Your task to perform on an android device: empty trash in the gmail app Image 0: 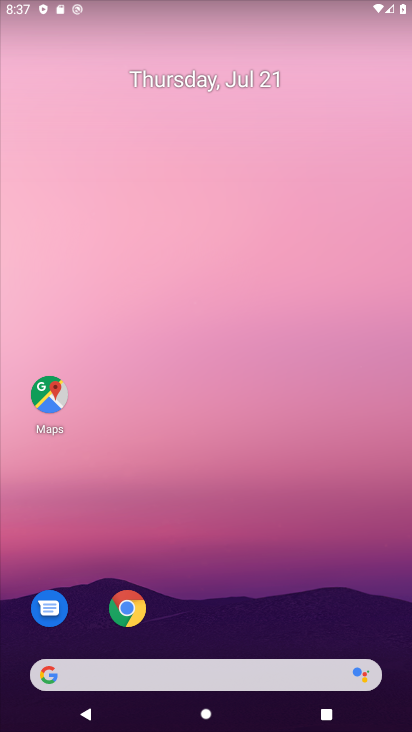
Step 0: drag from (237, 637) to (128, 172)
Your task to perform on an android device: empty trash in the gmail app Image 1: 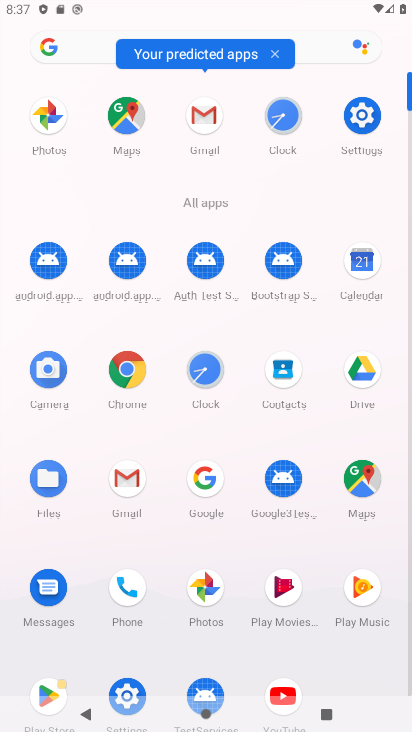
Step 1: click (200, 108)
Your task to perform on an android device: empty trash in the gmail app Image 2: 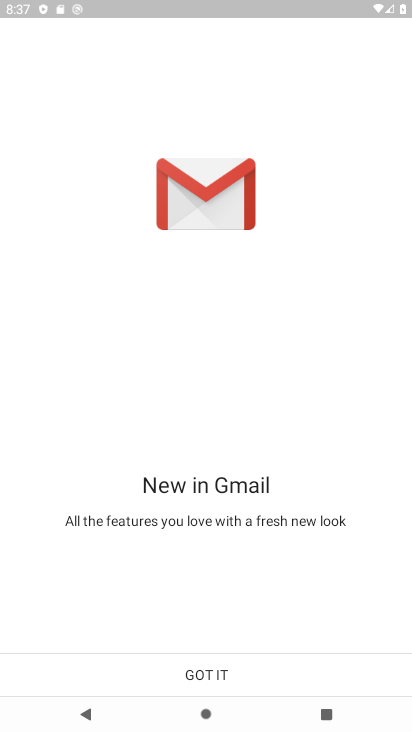
Step 2: click (201, 663)
Your task to perform on an android device: empty trash in the gmail app Image 3: 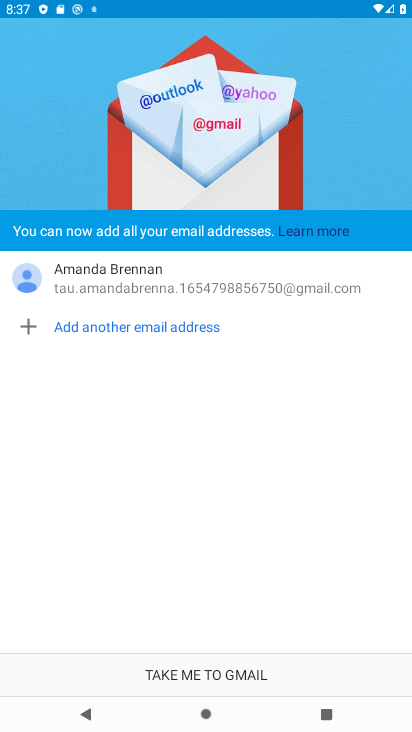
Step 3: click (206, 677)
Your task to perform on an android device: empty trash in the gmail app Image 4: 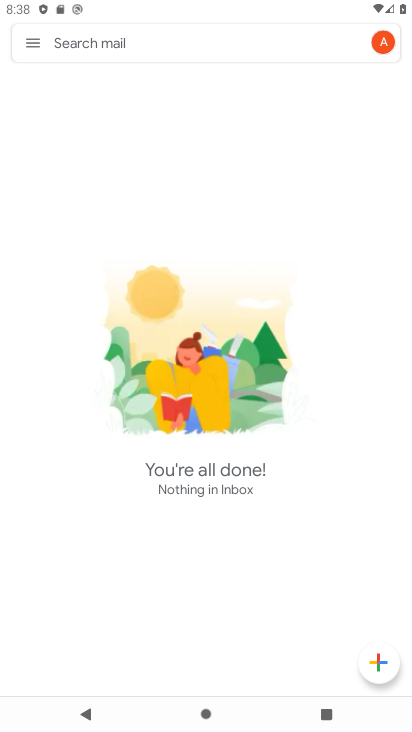
Step 4: click (25, 43)
Your task to perform on an android device: empty trash in the gmail app Image 5: 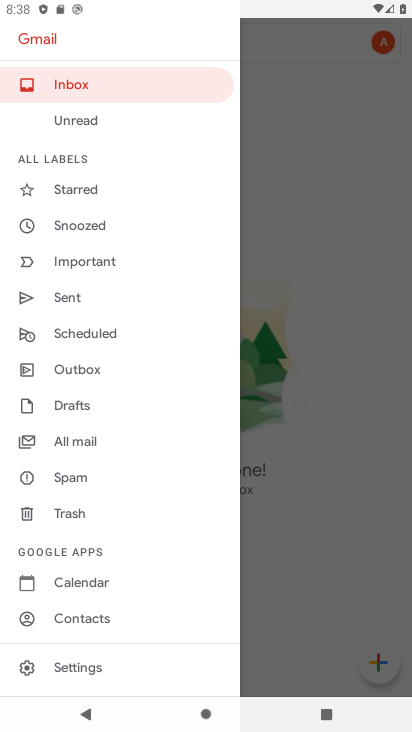
Step 5: click (76, 510)
Your task to perform on an android device: empty trash in the gmail app Image 6: 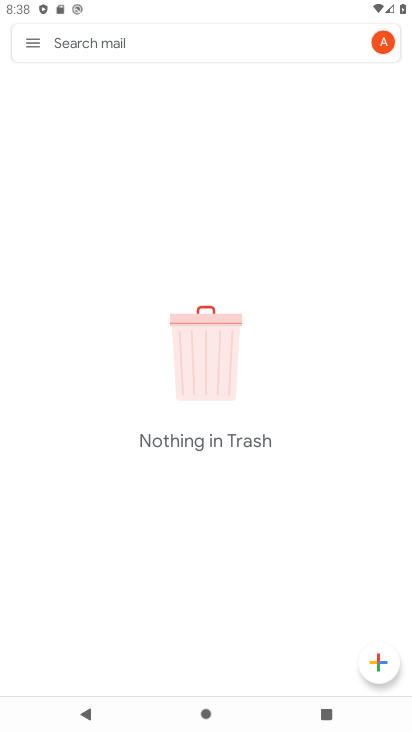
Step 6: task complete